Your task to perform on an android device: Open calendar and show me the third week of next month Image 0: 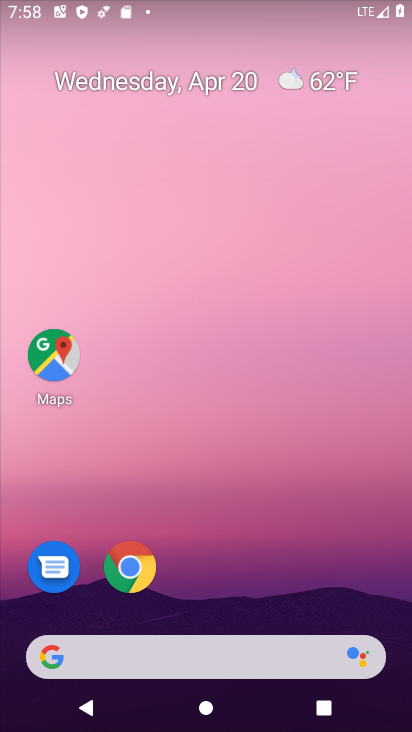
Step 0: drag from (313, 468) to (289, 100)
Your task to perform on an android device: Open calendar and show me the third week of next month Image 1: 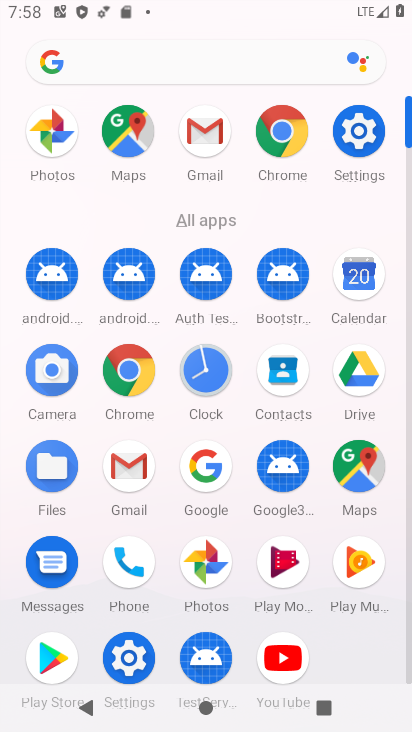
Step 1: click (355, 282)
Your task to perform on an android device: Open calendar and show me the third week of next month Image 2: 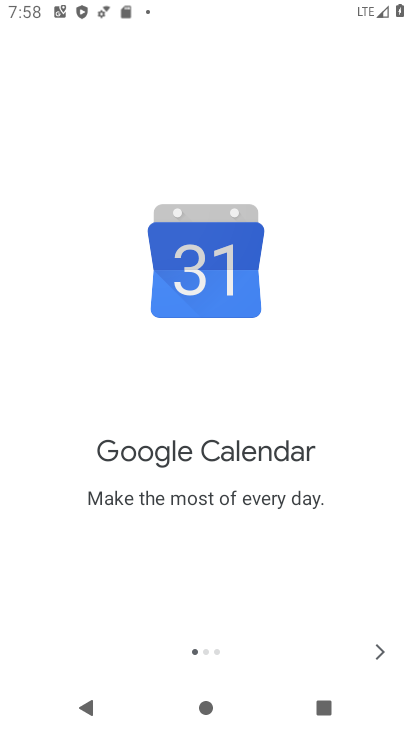
Step 2: click (378, 647)
Your task to perform on an android device: Open calendar and show me the third week of next month Image 3: 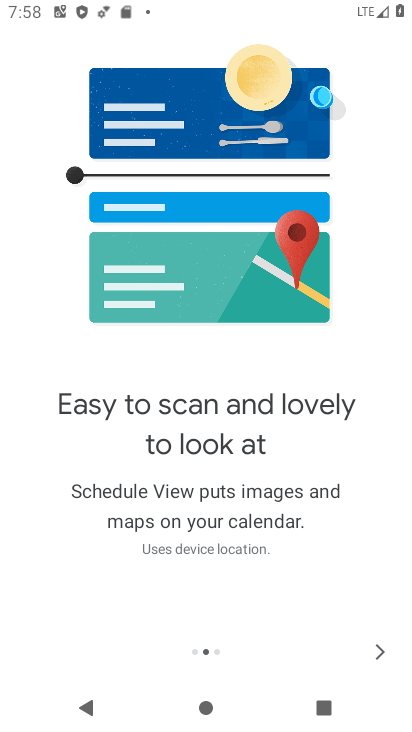
Step 3: click (378, 647)
Your task to perform on an android device: Open calendar and show me the third week of next month Image 4: 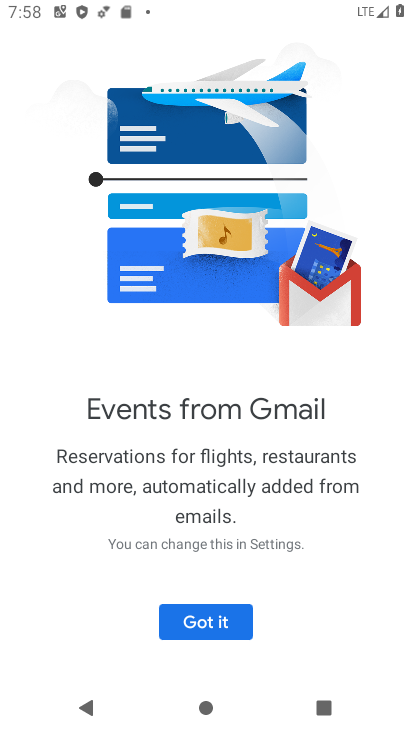
Step 4: click (197, 635)
Your task to perform on an android device: Open calendar and show me the third week of next month Image 5: 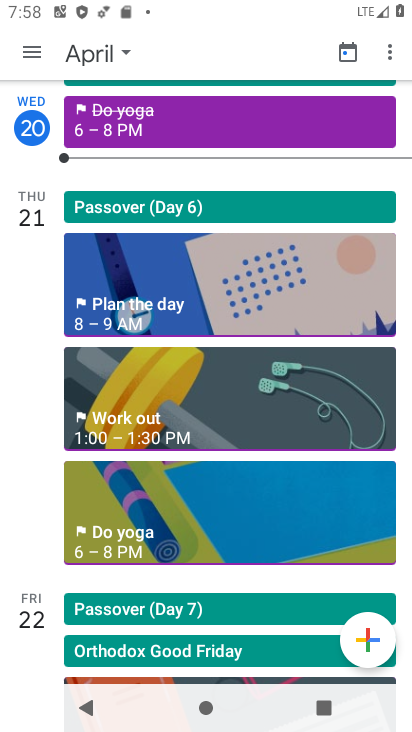
Step 5: click (88, 51)
Your task to perform on an android device: Open calendar and show me the third week of next month Image 6: 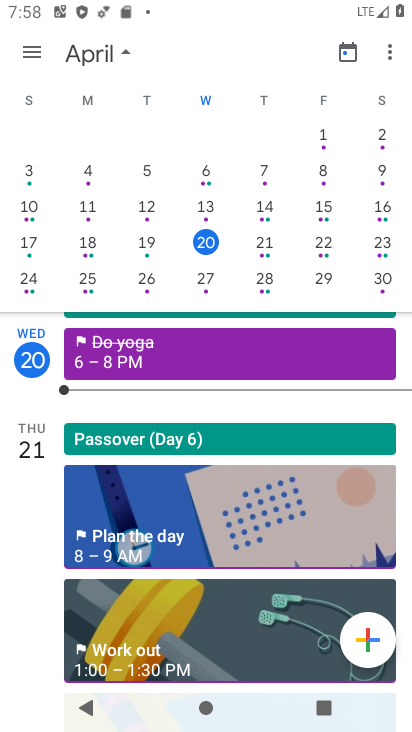
Step 6: drag from (345, 196) to (25, 244)
Your task to perform on an android device: Open calendar and show me the third week of next month Image 7: 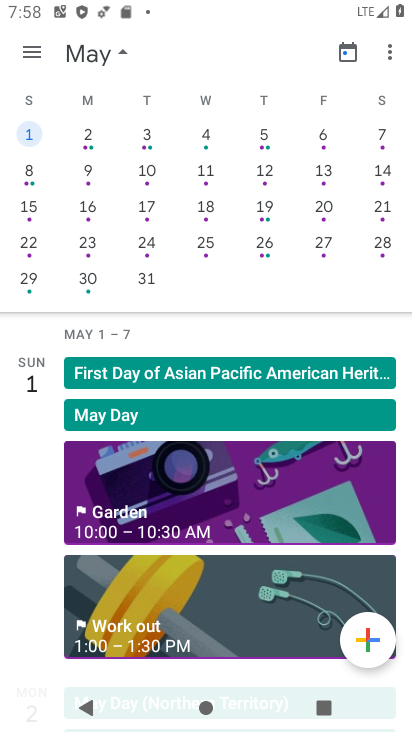
Step 7: click (378, 209)
Your task to perform on an android device: Open calendar and show me the third week of next month Image 8: 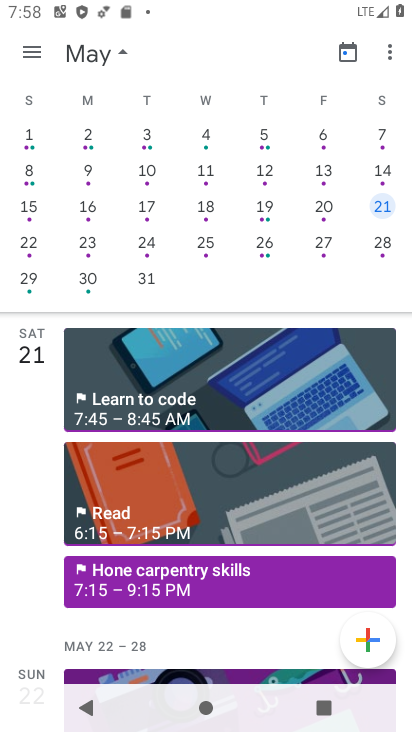
Step 8: task complete